Your task to perform on an android device: Is it going to rain today? Image 0: 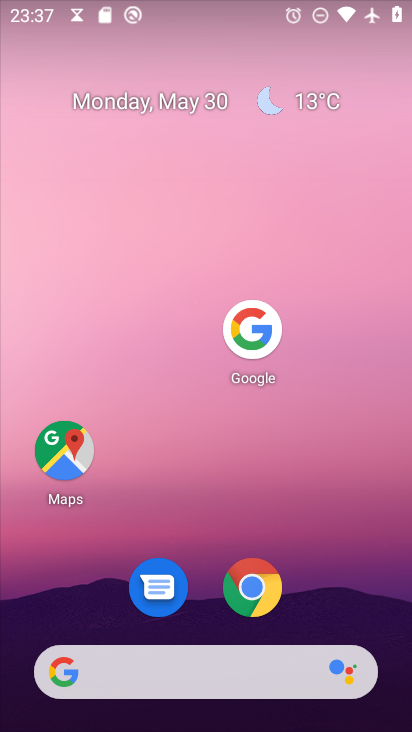
Step 0: press home button
Your task to perform on an android device: Is it going to rain today? Image 1: 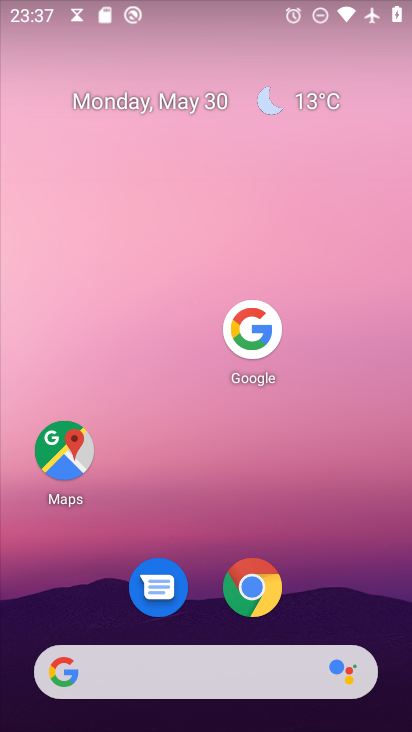
Step 1: click (302, 106)
Your task to perform on an android device: Is it going to rain today? Image 2: 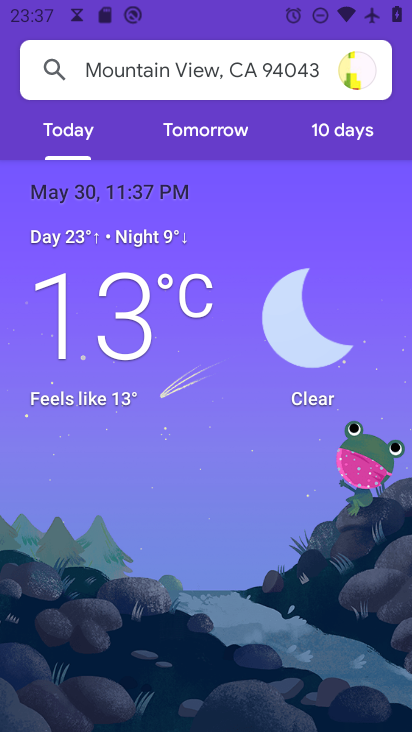
Step 2: task complete